Your task to perform on an android device: Go to display settings Image 0: 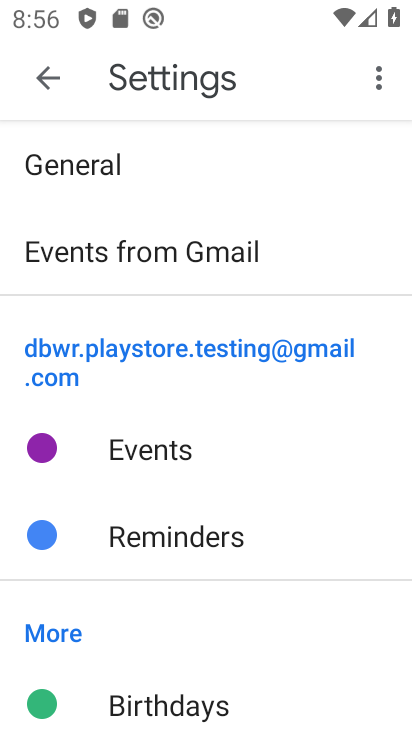
Step 0: press home button
Your task to perform on an android device: Go to display settings Image 1: 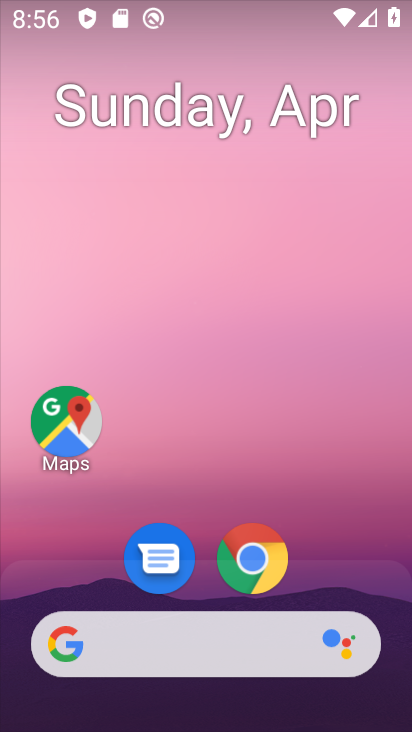
Step 1: drag from (350, 567) to (335, 63)
Your task to perform on an android device: Go to display settings Image 2: 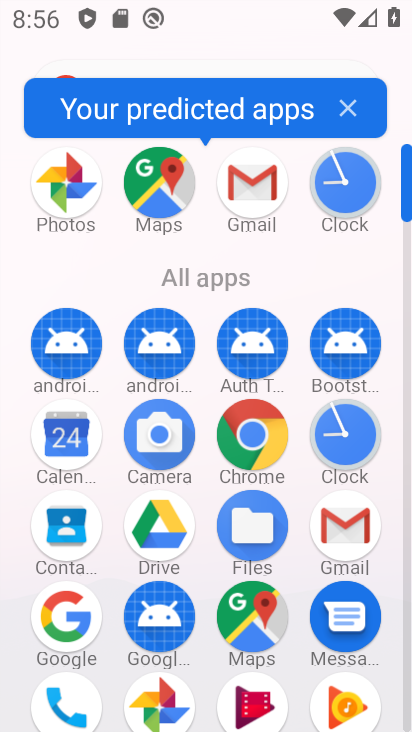
Step 2: drag from (397, 575) to (392, 148)
Your task to perform on an android device: Go to display settings Image 3: 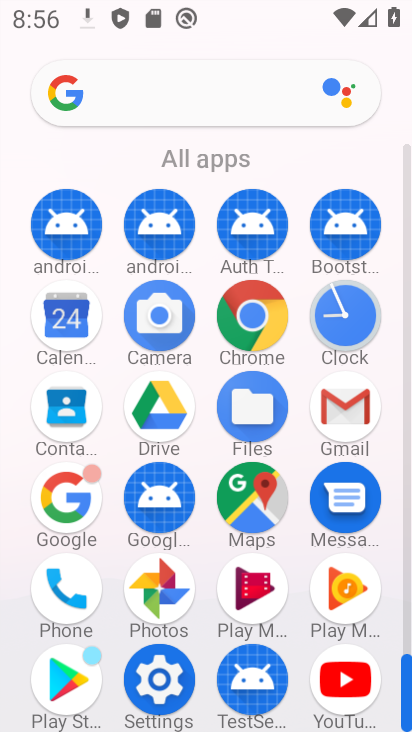
Step 3: click (165, 688)
Your task to perform on an android device: Go to display settings Image 4: 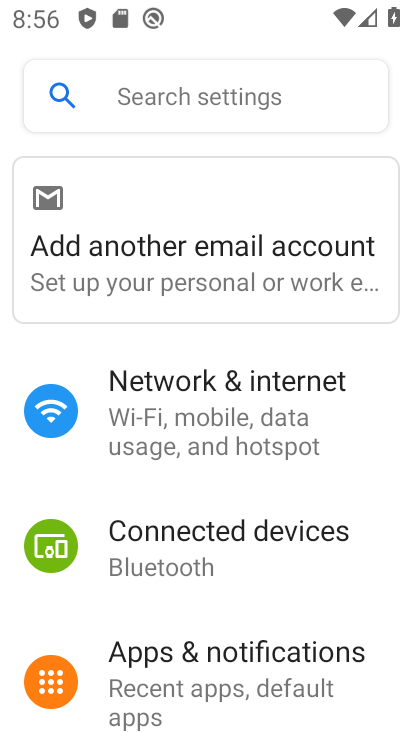
Step 4: drag from (378, 578) to (386, 212)
Your task to perform on an android device: Go to display settings Image 5: 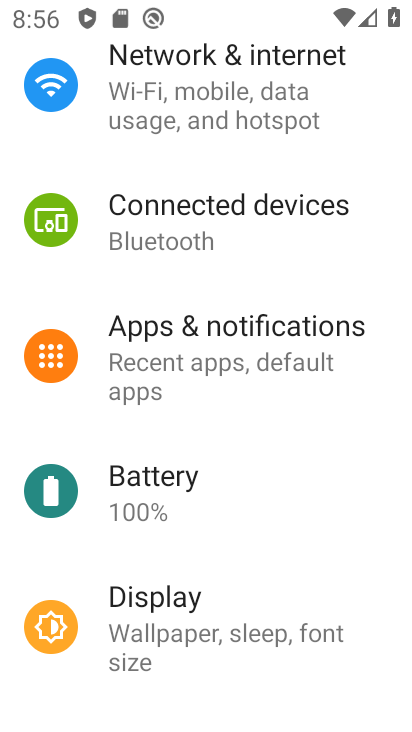
Step 5: drag from (370, 639) to (377, 421)
Your task to perform on an android device: Go to display settings Image 6: 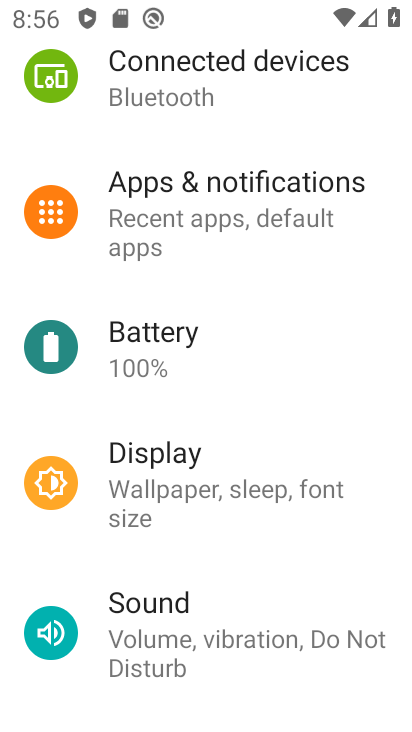
Step 6: click (218, 479)
Your task to perform on an android device: Go to display settings Image 7: 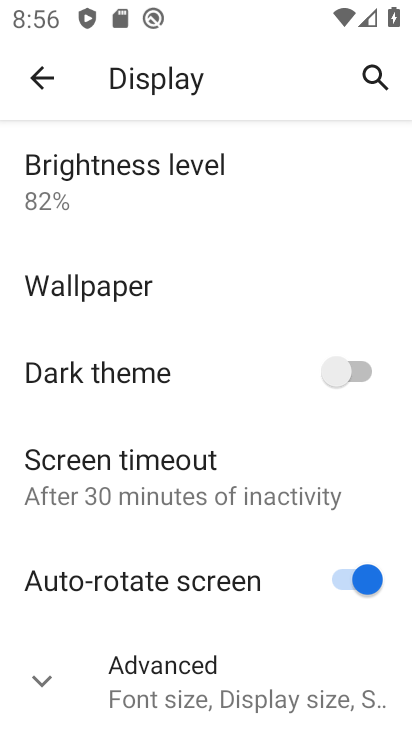
Step 7: click (193, 682)
Your task to perform on an android device: Go to display settings Image 8: 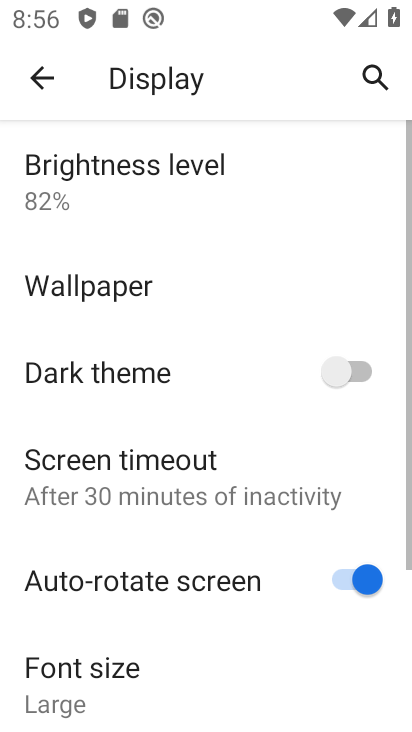
Step 8: task complete